Your task to perform on an android device: make emails show in primary in the gmail app Image 0: 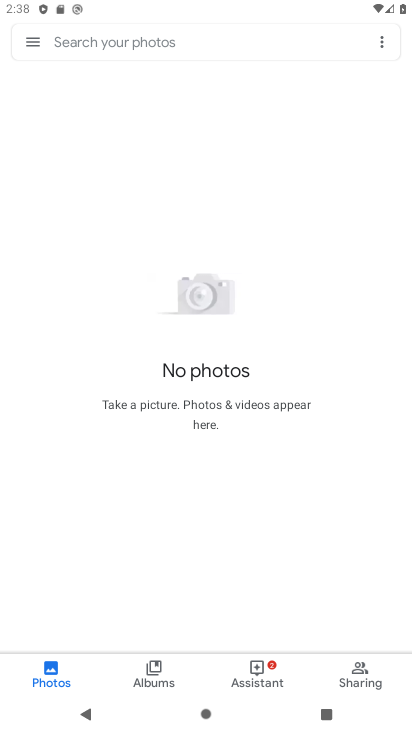
Step 0: press home button
Your task to perform on an android device: make emails show in primary in the gmail app Image 1: 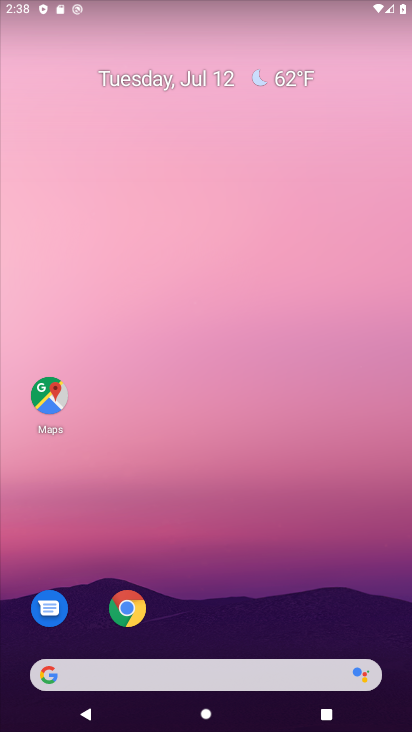
Step 1: drag from (191, 678) to (263, 292)
Your task to perform on an android device: make emails show in primary in the gmail app Image 2: 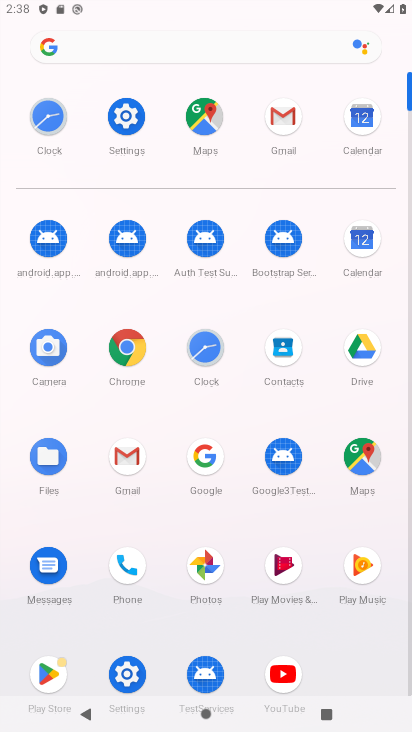
Step 2: click (291, 114)
Your task to perform on an android device: make emails show in primary in the gmail app Image 3: 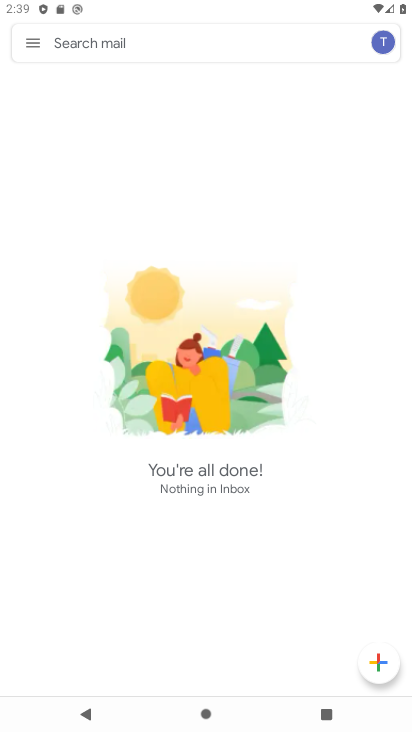
Step 3: click (31, 41)
Your task to perform on an android device: make emails show in primary in the gmail app Image 4: 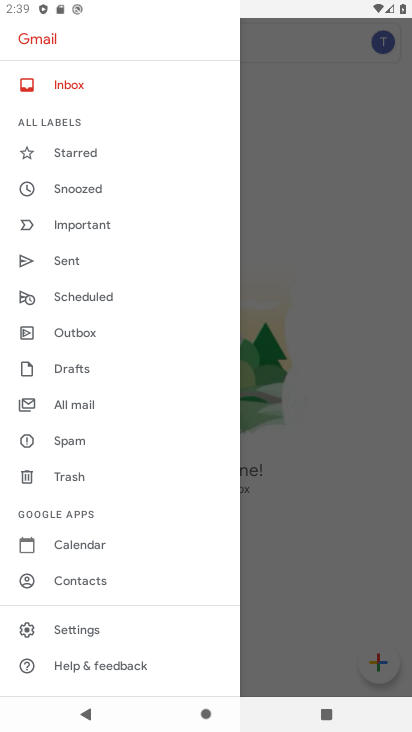
Step 4: click (102, 631)
Your task to perform on an android device: make emails show in primary in the gmail app Image 5: 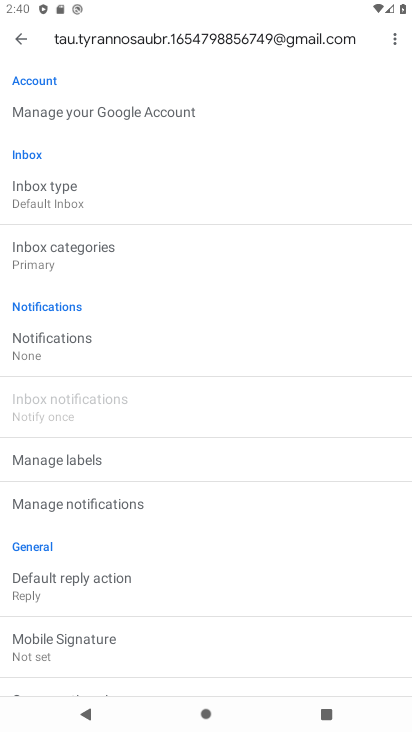
Step 5: task complete